Your task to perform on an android device: see tabs open on other devices in the chrome app Image 0: 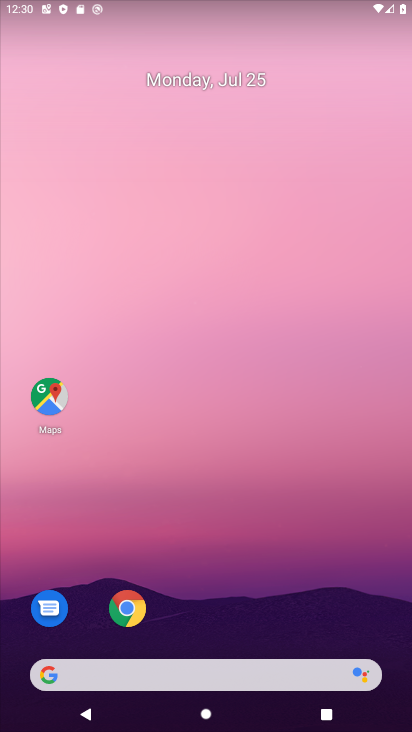
Step 0: click (244, 65)
Your task to perform on an android device: see tabs open on other devices in the chrome app Image 1: 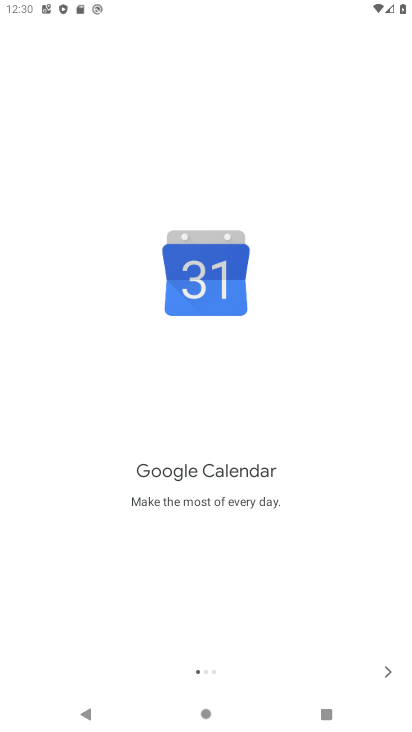
Step 1: press home button
Your task to perform on an android device: see tabs open on other devices in the chrome app Image 2: 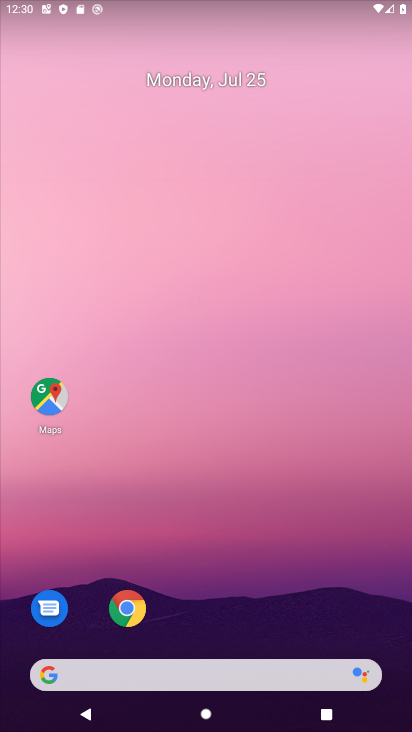
Step 2: drag from (178, 620) to (263, 135)
Your task to perform on an android device: see tabs open on other devices in the chrome app Image 3: 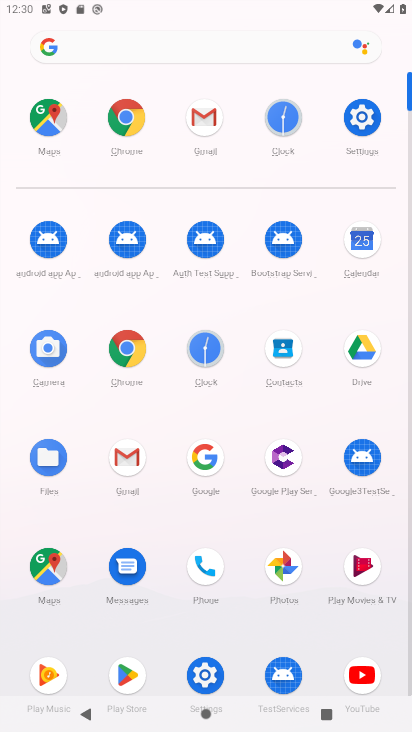
Step 3: click (126, 362)
Your task to perform on an android device: see tabs open on other devices in the chrome app Image 4: 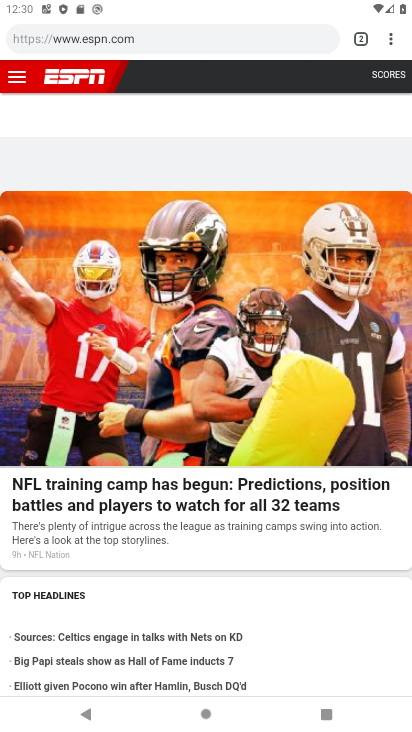
Step 4: click (389, 38)
Your task to perform on an android device: see tabs open on other devices in the chrome app Image 5: 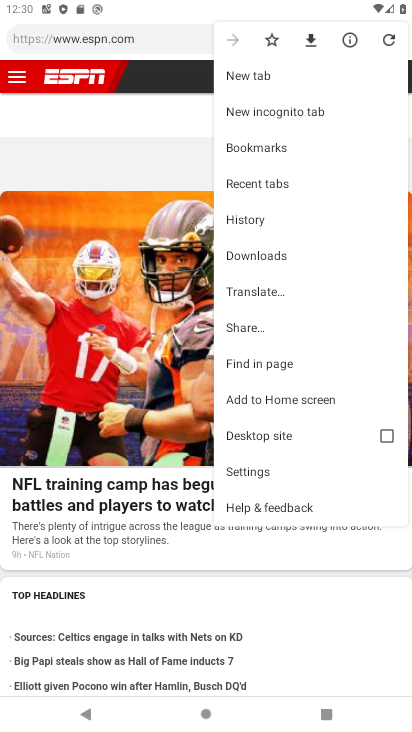
Step 5: click (280, 185)
Your task to perform on an android device: see tabs open on other devices in the chrome app Image 6: 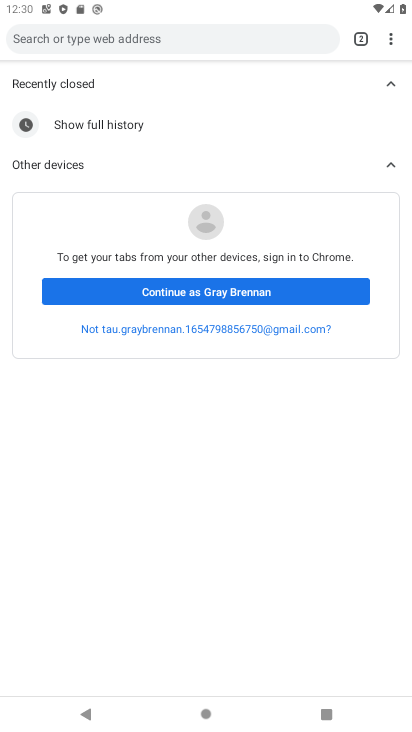
Step 6: click (275, 291)
Your task to perform on an android device: see tabs open on other devices in the chrome app Image 7: 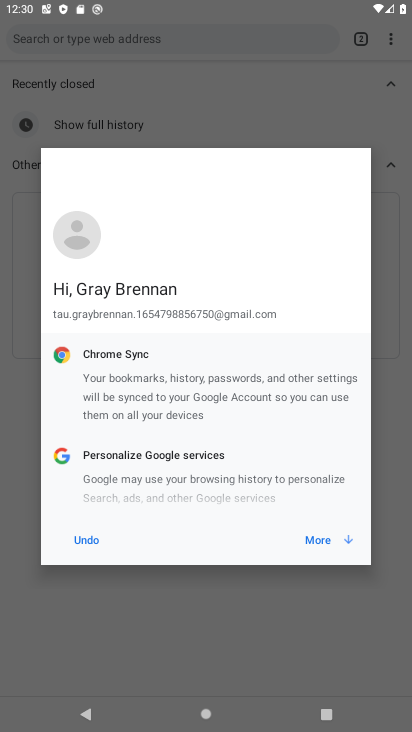
Step 7: click (330, 541)
Your task to perform on an android device: see tabs open on other devices in the chrome app Image 8: 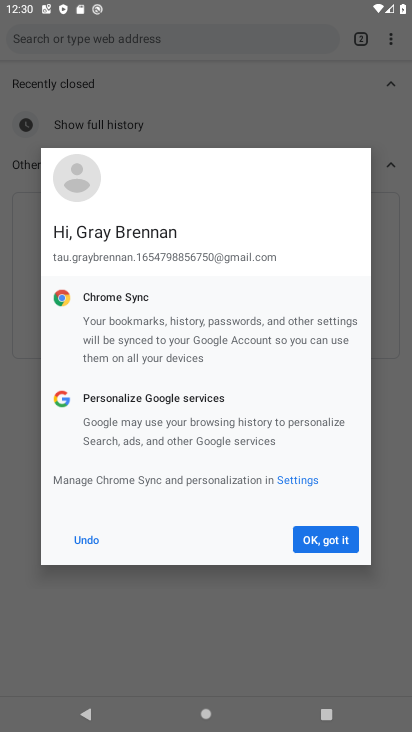
Step 8: click (330, 538)
Your task to perform on an android device: see tabs open on other devices in the chrome app Image 9: 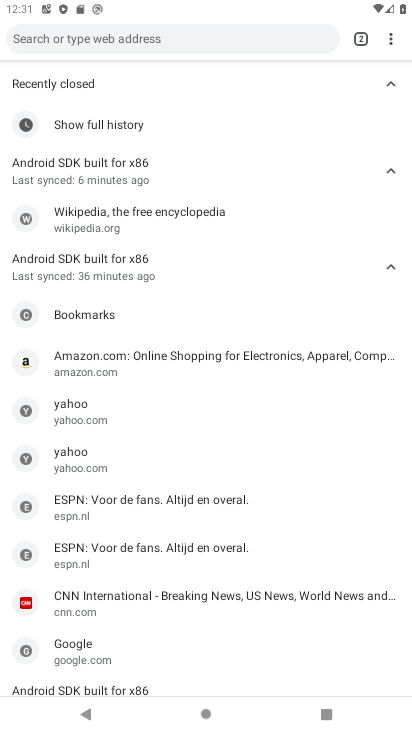
Step 9: task complete